Your task to perform on an android device: open sync settings in chrome Image 0: 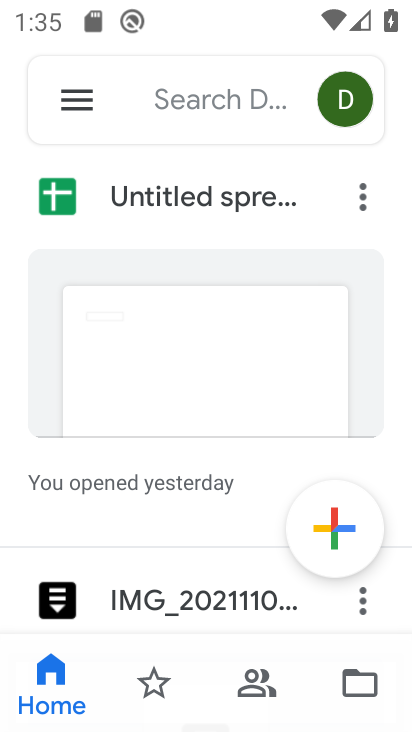
Step 0: press home button
Your task to perform on an android device: open sync settings in chrome Image 1: 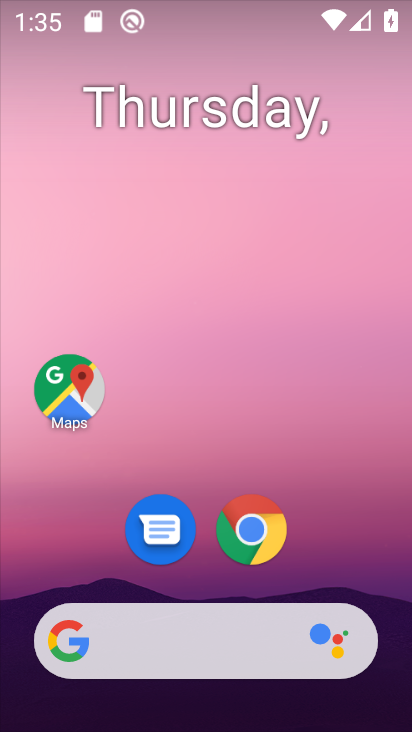
Step 1: click (260, 537)
Your task to perform on an android device: open sync settings in chrome Image 2: 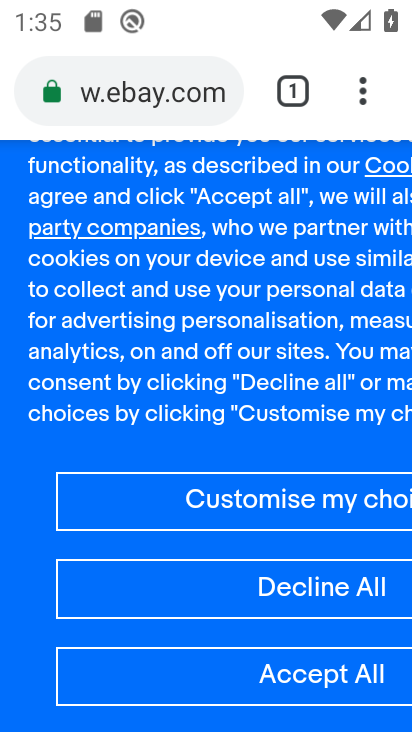
Step 2: click (359, 92)
Your task to perform on an android device: open sync settings in chrome Image 3: 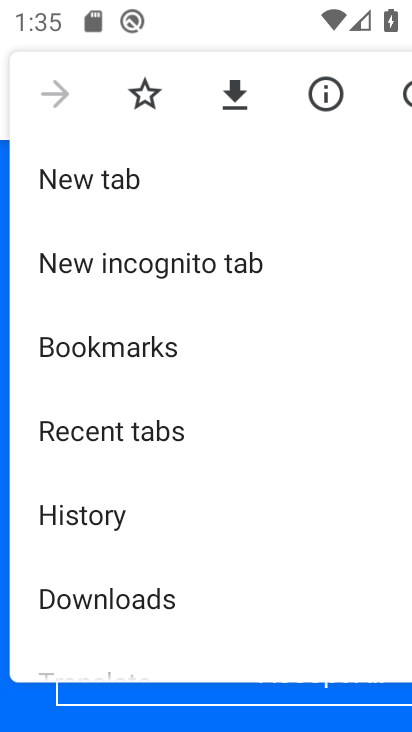
Step 3: drag from (161, 562) to (188, 184)
Your task to perform on an android device: open sync settings in chrome Image 4: 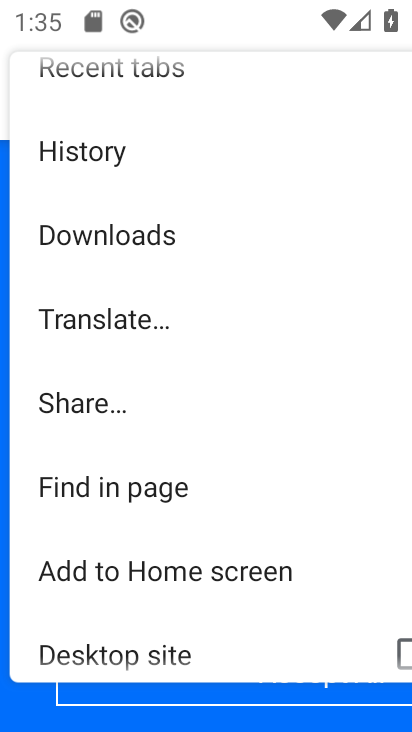
Step 4: click (183, 191)
Your task to perform on an android device: open sync settings in chrome Image 5: 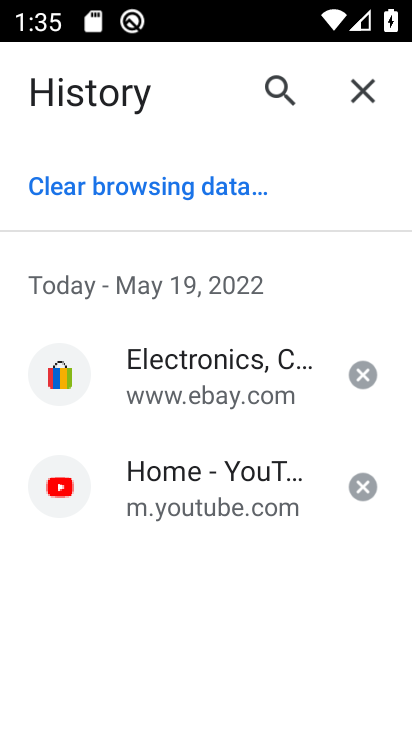
Step 5: click (366, 98)
Your task to perform on an android device: open sync settings in chrome Image 6: 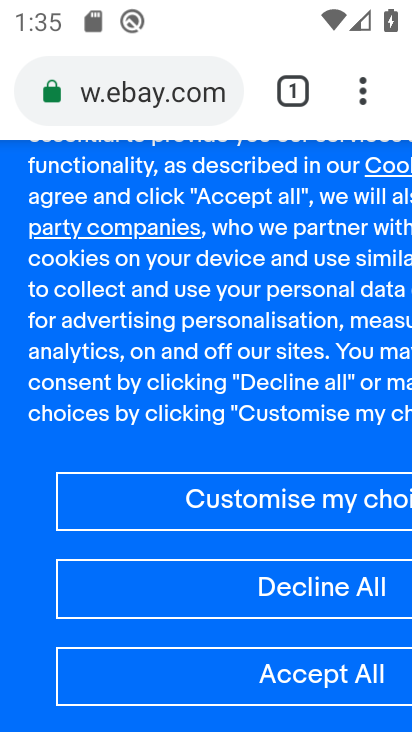
Step 6: click (364, 99)
Your task to perform on an android device: open sync settings in chrome Image 7: 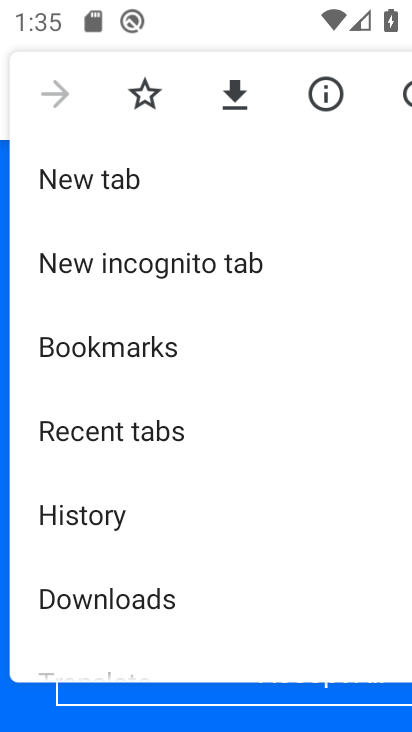
Step 7: drag from (152, 598) to (191, 233)
Your task to perform on an android device: open sync settings in chrome Image 8: 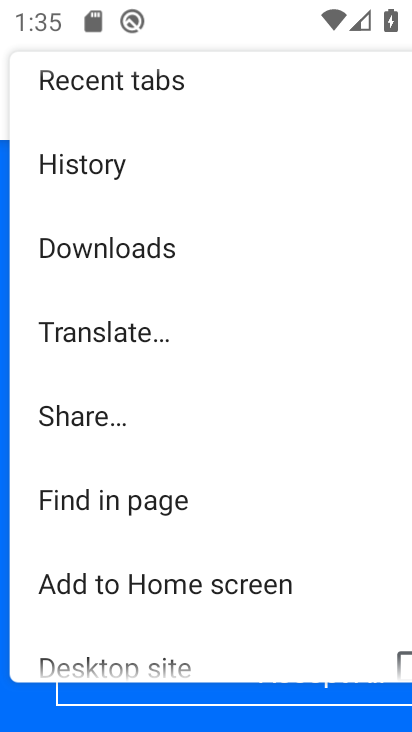
Step 8: drag from (178, 449) to (204, 224)
Your task to perform on an android device: open sync settings in chrome Image 9: 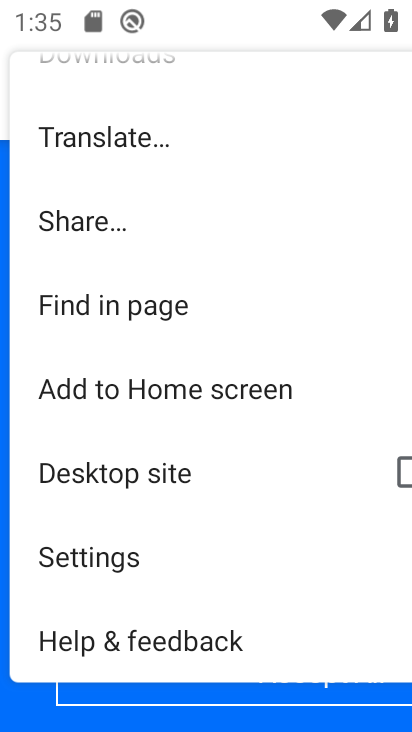
Step 9: click (119, 563)
Your task to perform on an android device: open sync settings in chrome Image 10: 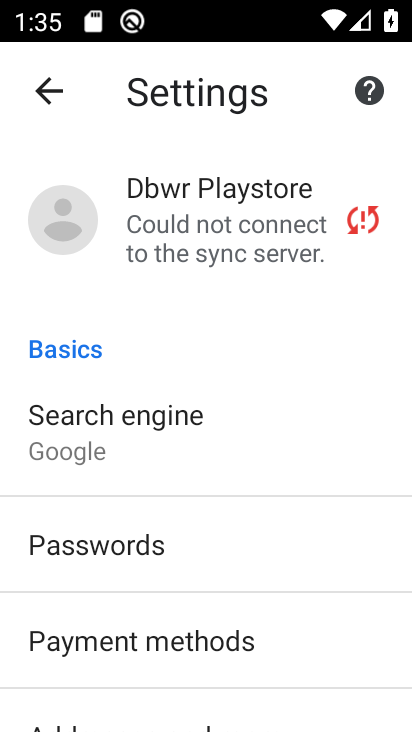
Step 10: drag from (159, 659) to (184, 389)
Your task to perform on an android device: open sync settings in chrome Image 11: 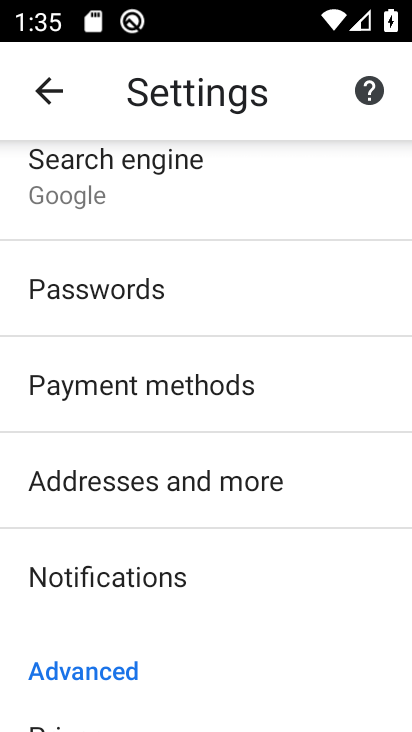
Step 11: click (199, 627)
Your task to perform on an android device: open sync settings in chrome Image 12: 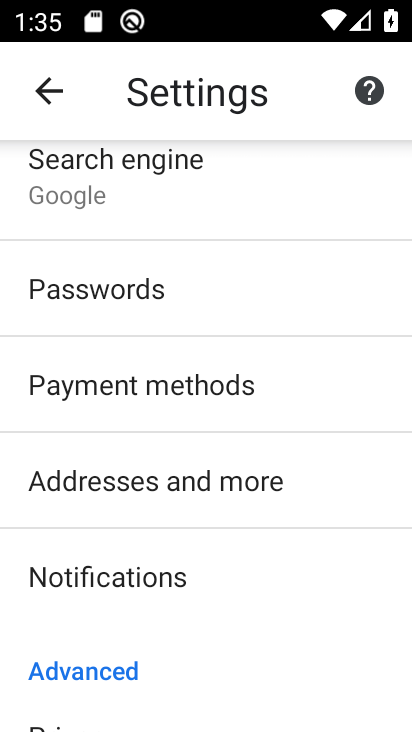
Step 12: drag from (231, 311) to (217, 607)
Your task to perform on an android device: open sync settings in chrome Image 13: 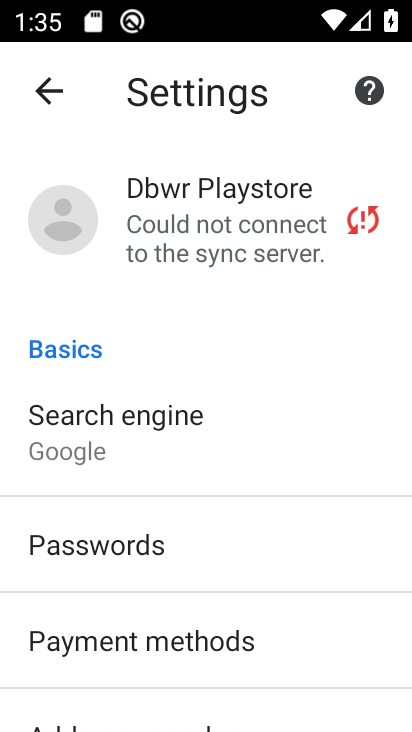
Step 13: click (200, 257)
Your task to perform on an android device: open sync settings in chrome Image 14: 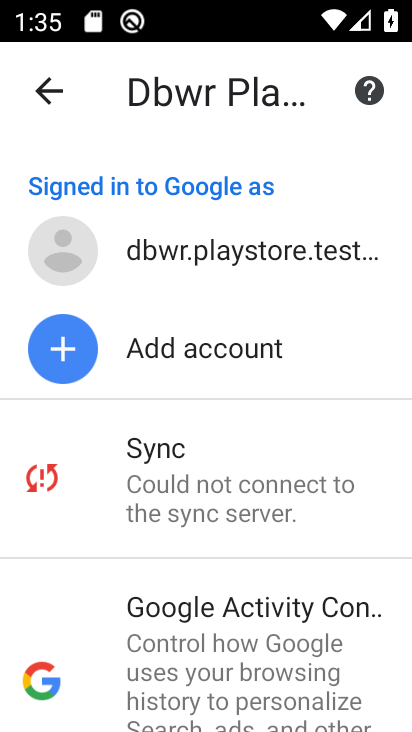
Step 14: click (182, 504)
Your task to perform on an android device: open sync settings in chrome Image 15: 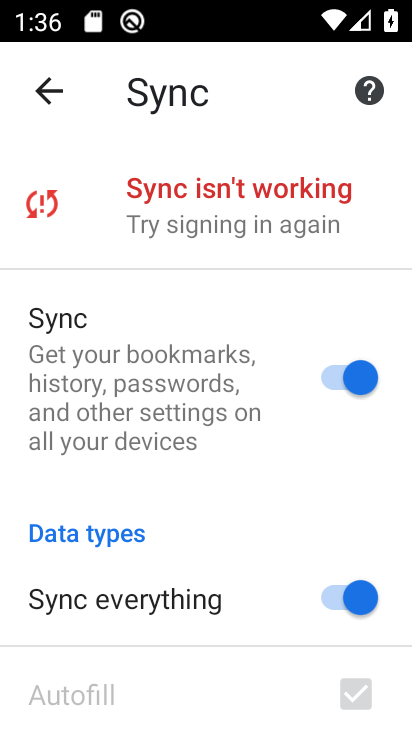
Step 15: click (220, 357)
Your task to perform on an android device: open sync settings in chrome Image 16: 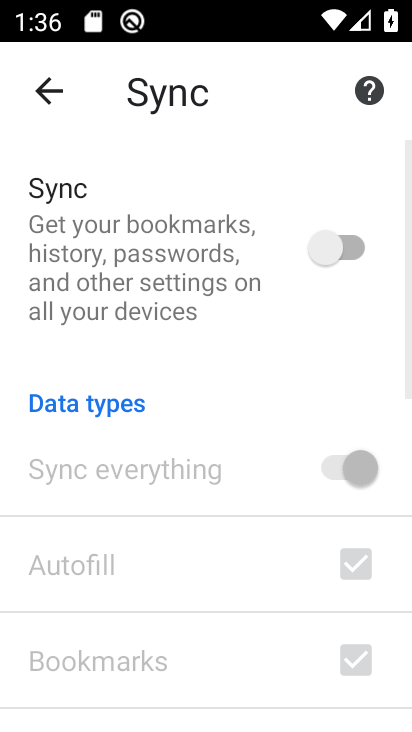
Step 16: task complete